Your task to perform on an android device: delete a single message in the gmail app Image 0: 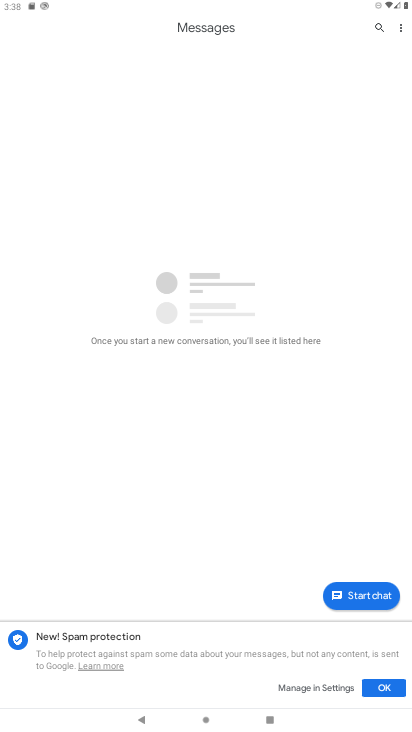
Step 0: press home button
Your task to perform on an android device: delete a single message in the gmail app Image 1: 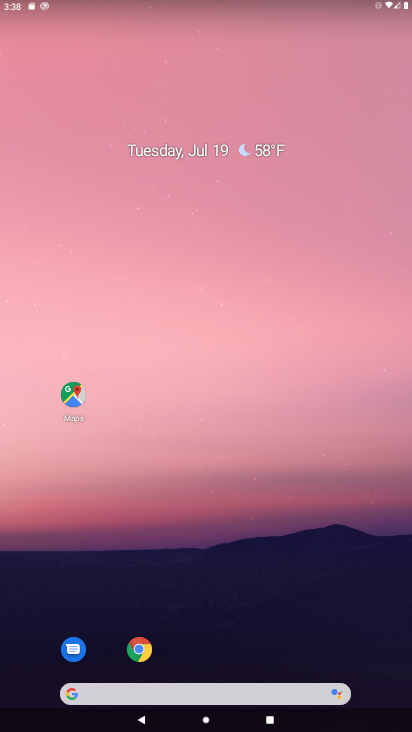
Step 1: drag from (218, 605) to (220, 193)
Your task to perform on an android device: delete a single message in the gmail app Image 2: 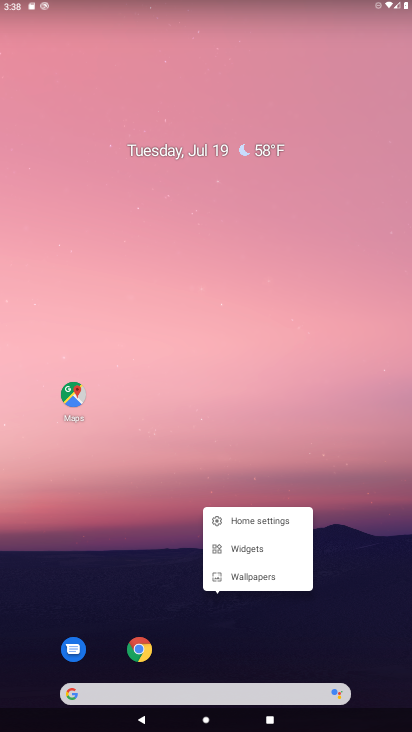
Step 2: click (219, 404)
Your task to perform on an android device: delete a single message in the gmail app Image 3: 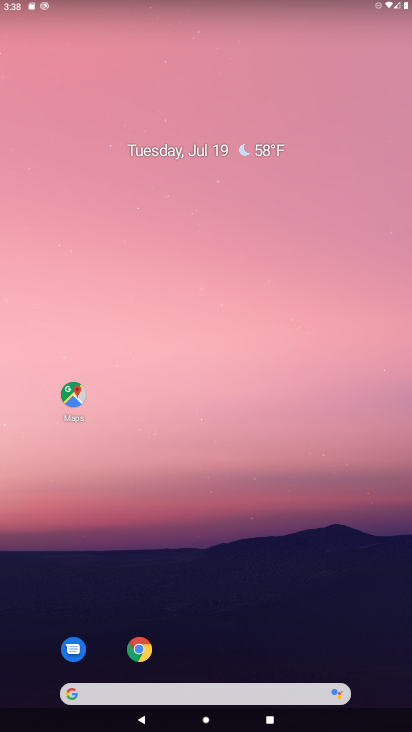
Step 3: drag from (221, 521) to (221, 169)
Your task to perform on an android device: delete a single message in the gmail app Image 4: 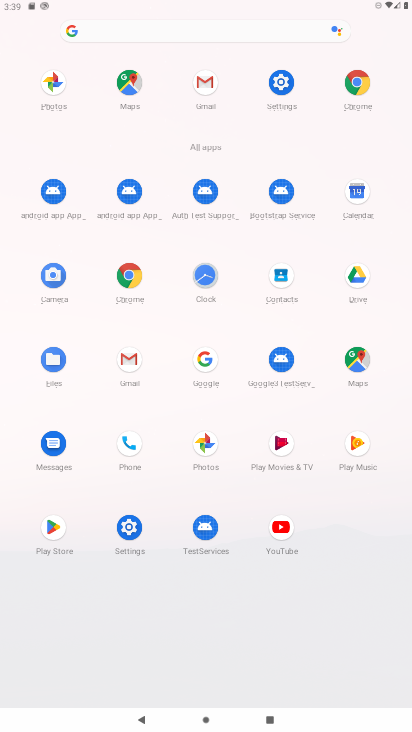
Step 4: click (125, 367)
Your task to perform on an android device: delete a single message in the gmail app Image 5: 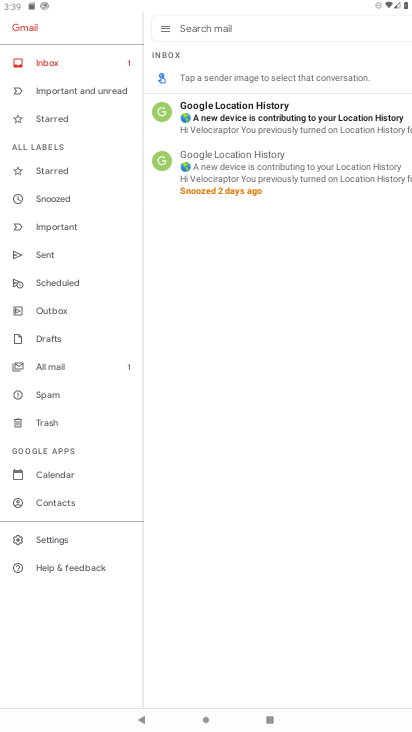
Step 5: click (244, 117)
Your task to perform on an android device: delete a single message in the gmail app Image 6: 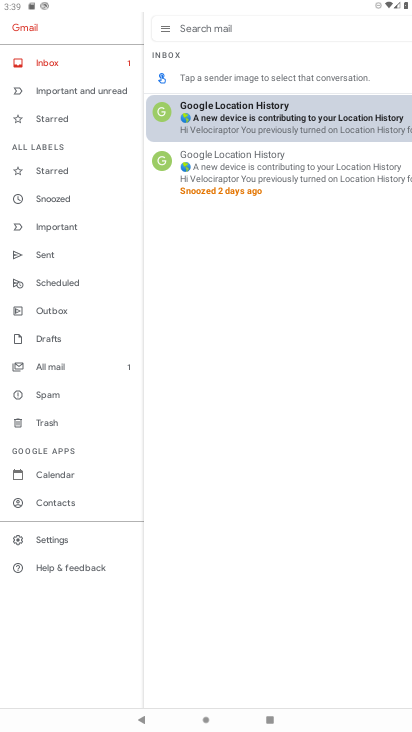
Step 6: click (244, 117)
Your task to perform on an android device: delete a single message in the gmail app Image 7: 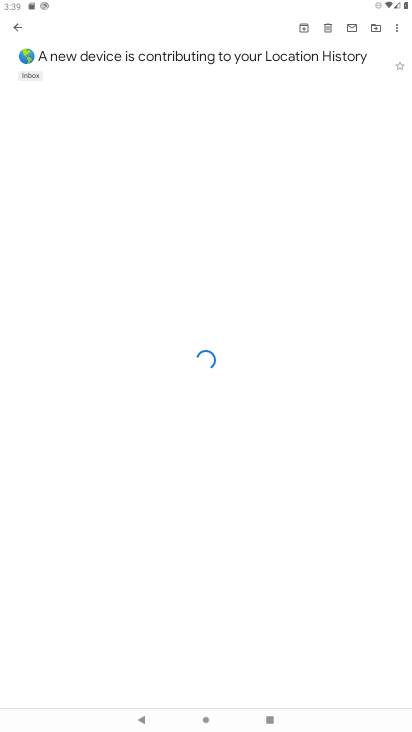
Step 7: click (325, 24)
Your task to perform on an android device: delete a single message in the gmail app Image 8: 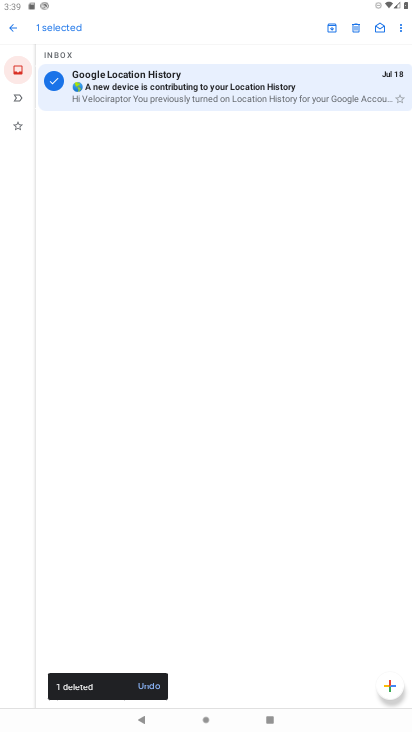
Step 8: task complete